Your task to perform on an android device: open wifi settings Image 0: 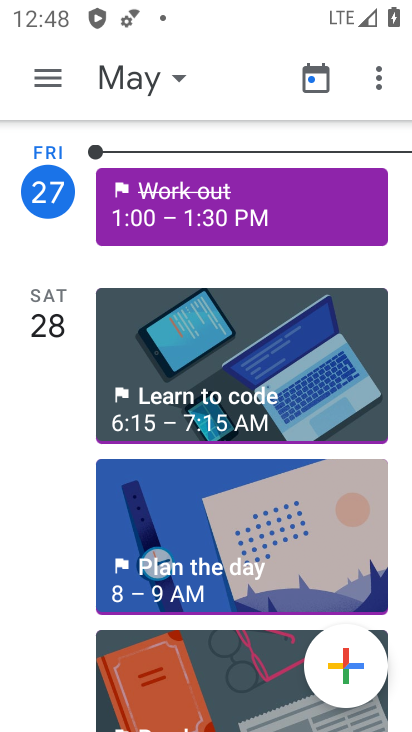
Step 0: press home button
Your task to perform on an android device: open wifi settings Image 1: 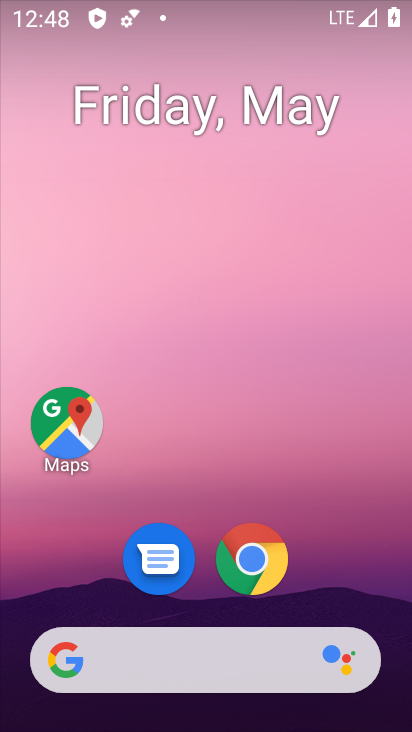
Step 1: drag from (362, 532) to (295, 146)
Your task to perform on an android device: open wifi settings Image 2: 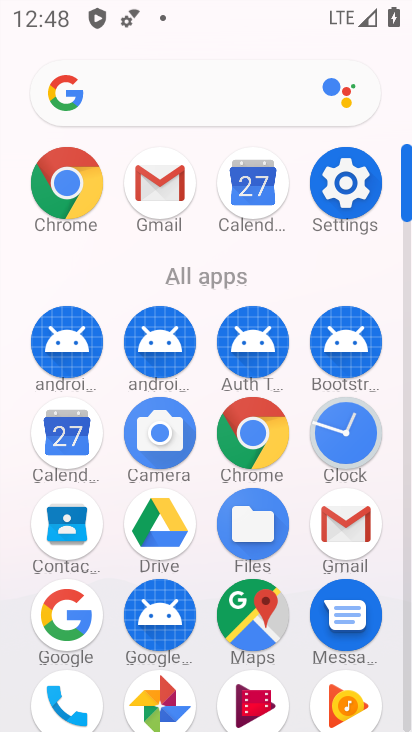
Step 2: click (346, 171)
Your task to perform on an android device: open wifi settings Image 3: 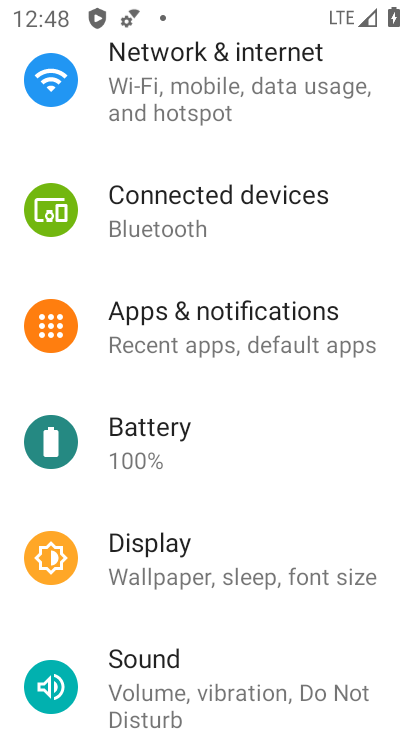
Step 3: click (230, 98)
Your task to perform on an android device: open wifi settings Image 4: 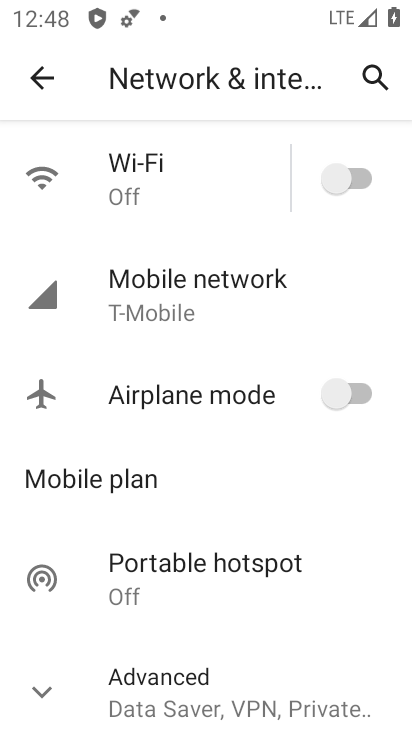
Step 4: click (212, 156)
Your task to perform on an android device: open wifi settings Image 5: 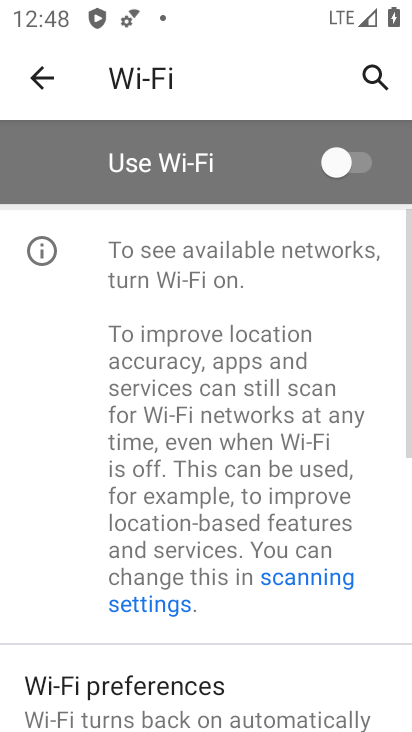
Step 5: click (333, 176)
Your task to perform on an android device: open wifi settings Image 6: 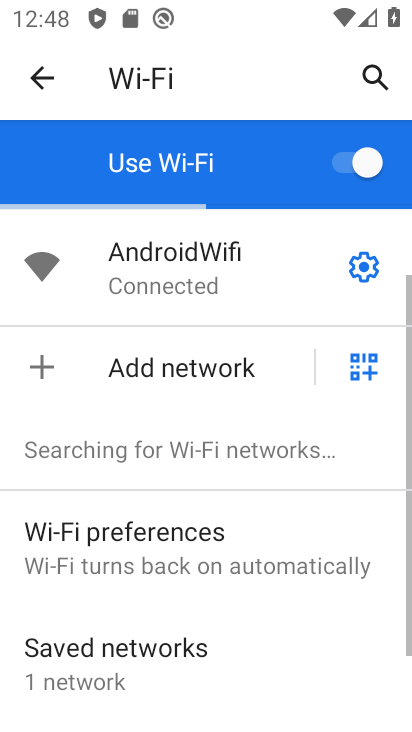
Step 6: click (358, 284)
Your task to perform on an android device: open wifi settings Image 7: 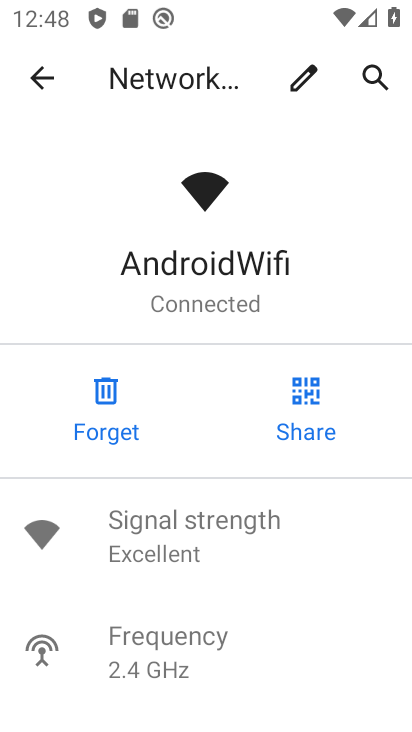
Step 7: task complete